Your task to perform on an android device: Set the phone to "Do not disturb". Image 0: 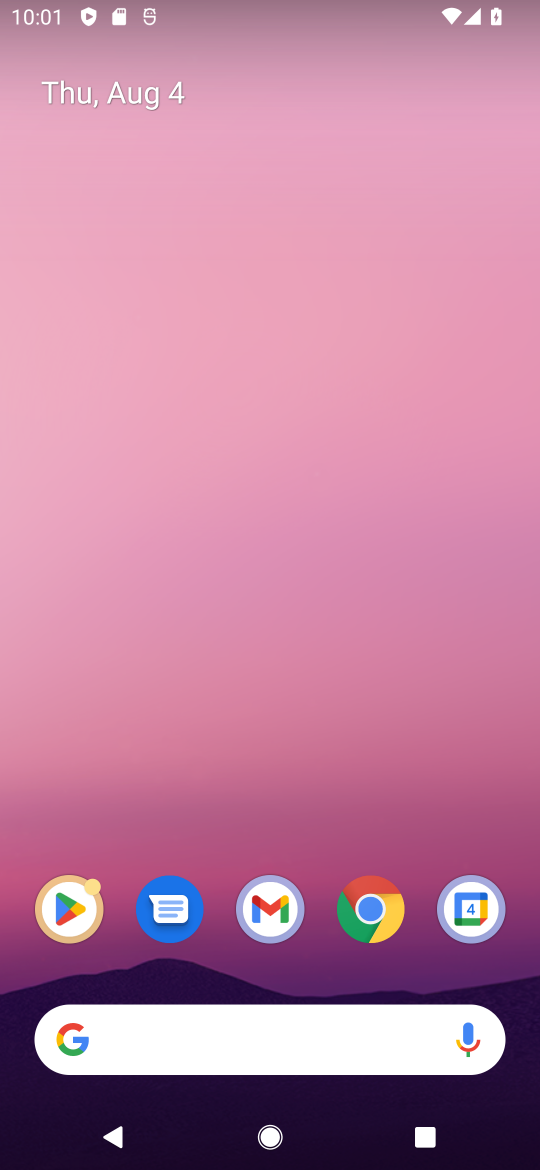
Step 0: drag from (311, 864) to (256, 0)
Your task to perform on an android device: Set the phone to "Do not disturb". Image 1: 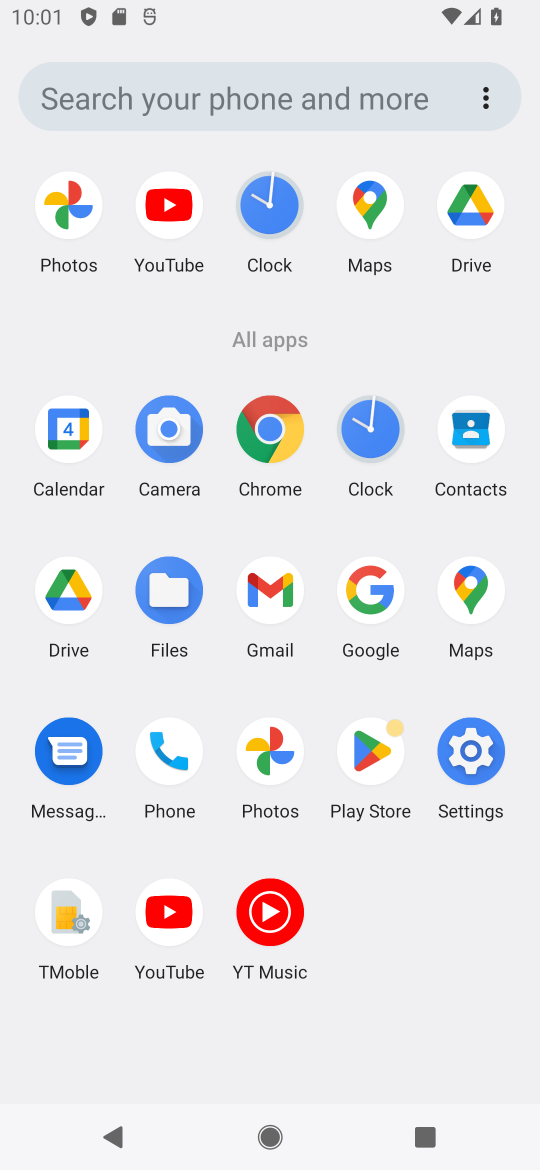
Step 1: click (468, 759)
Your task to perform on an android device: Set the phone to "Do not disturb". Image 2: 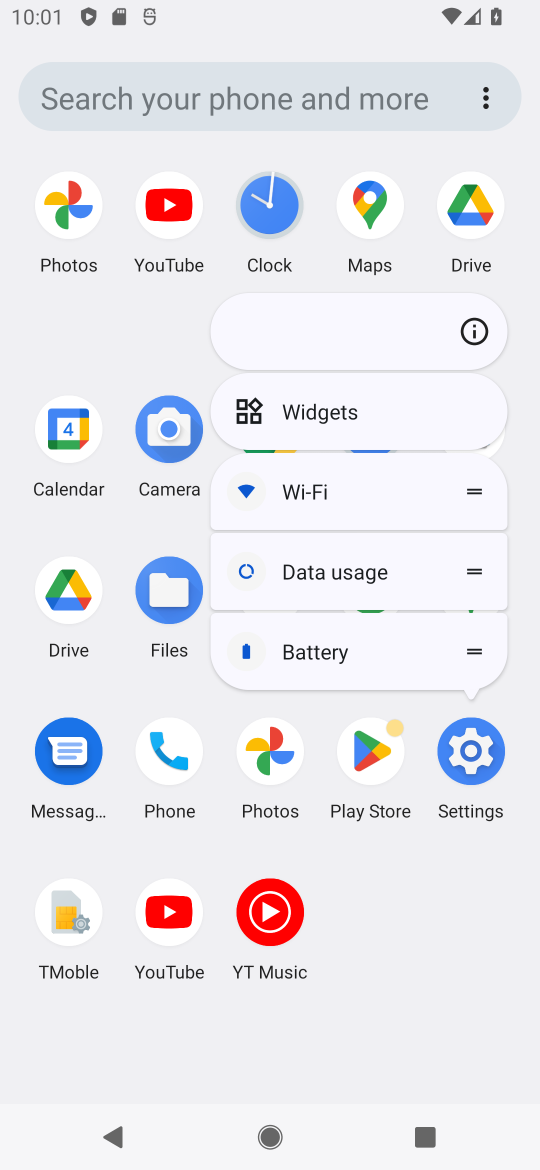
Step 2: click (468, 754)
Your task to perform on an android device: Set the phone to "Do not disturb". Image 3: 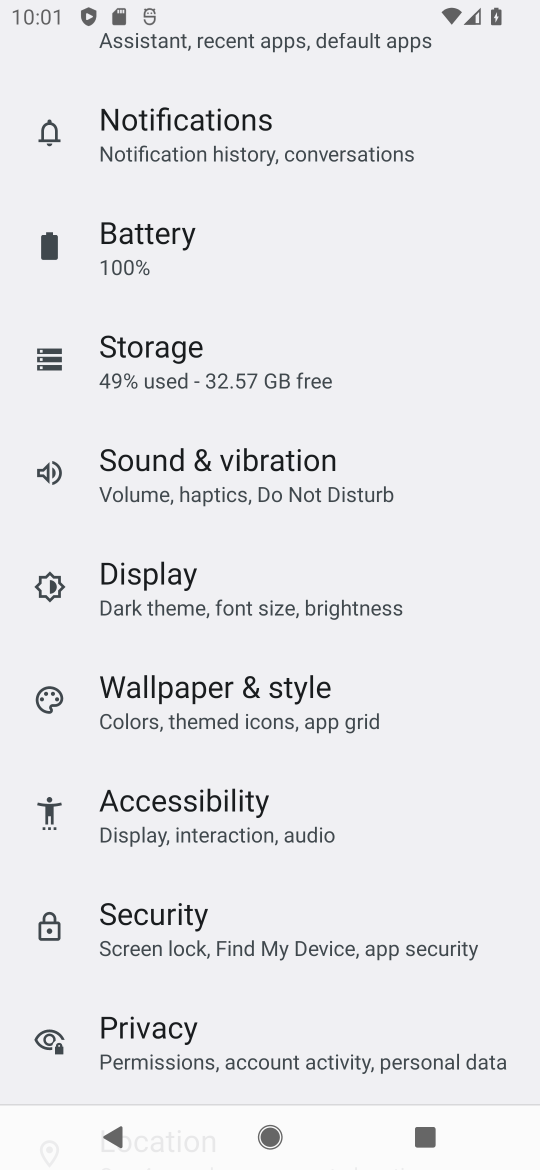
Step 3: drag from (373, 849) to (375, 376)
Your task to perform on an android device: Set the phone to "Do not disturb". Image 4: 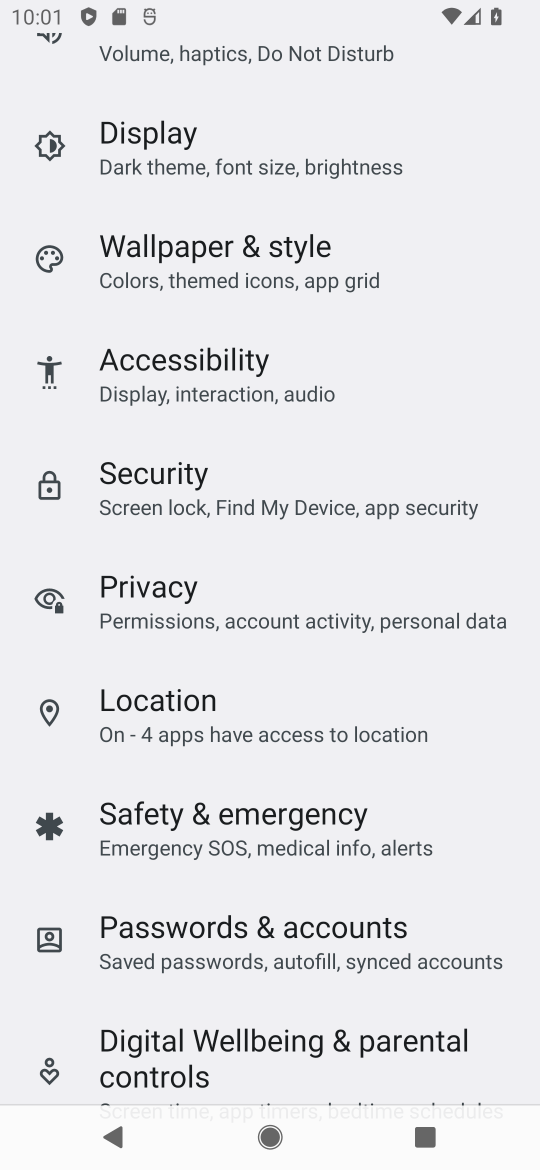
Step 4: drag from (508, 968) to (532, 374)
Your task to perform on an android device: Set the phone to "Do not disturb". Image 5: 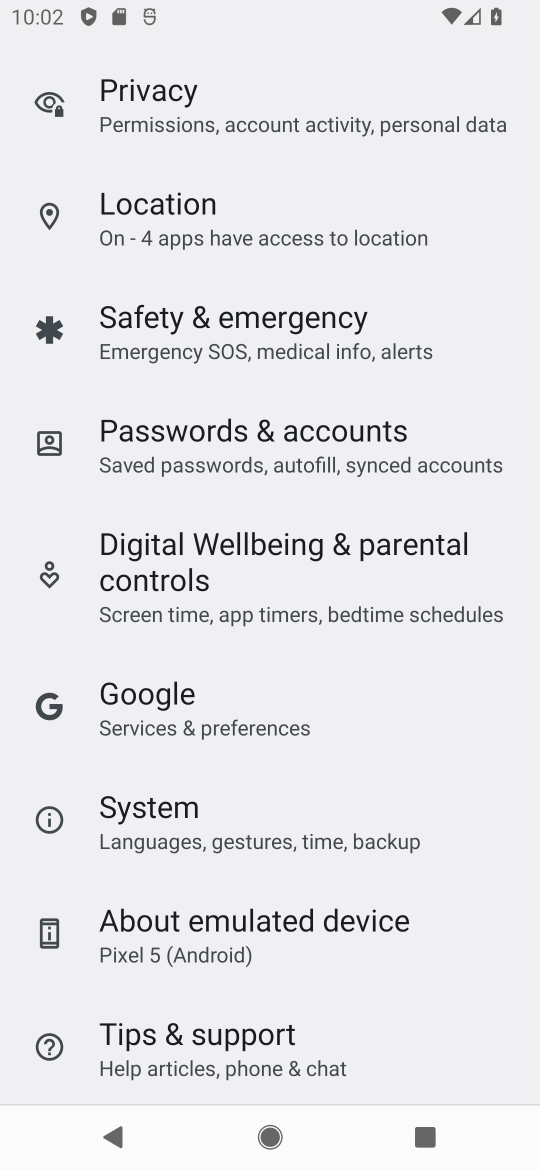
Step 5: drag from (464, 957) to (450, 426)
Your task to perform on an android device: Set the phone to "Do not disturb". Image 6: 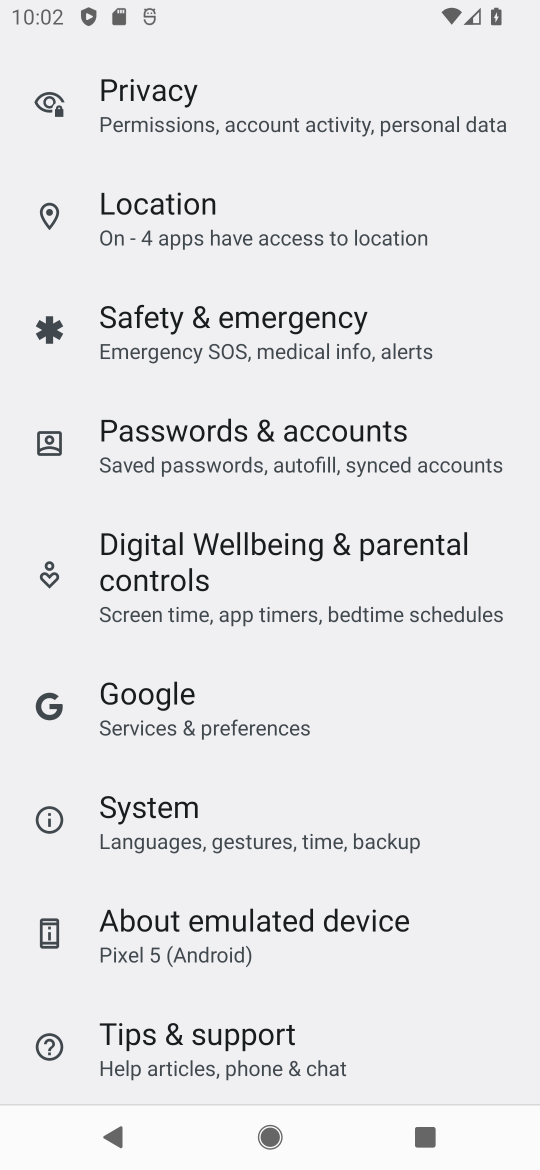
Step 6: drag from (456, 337) to (477, 893)
Your task to perform on an android device: Set the phone to "Do not disturb". Image 7: 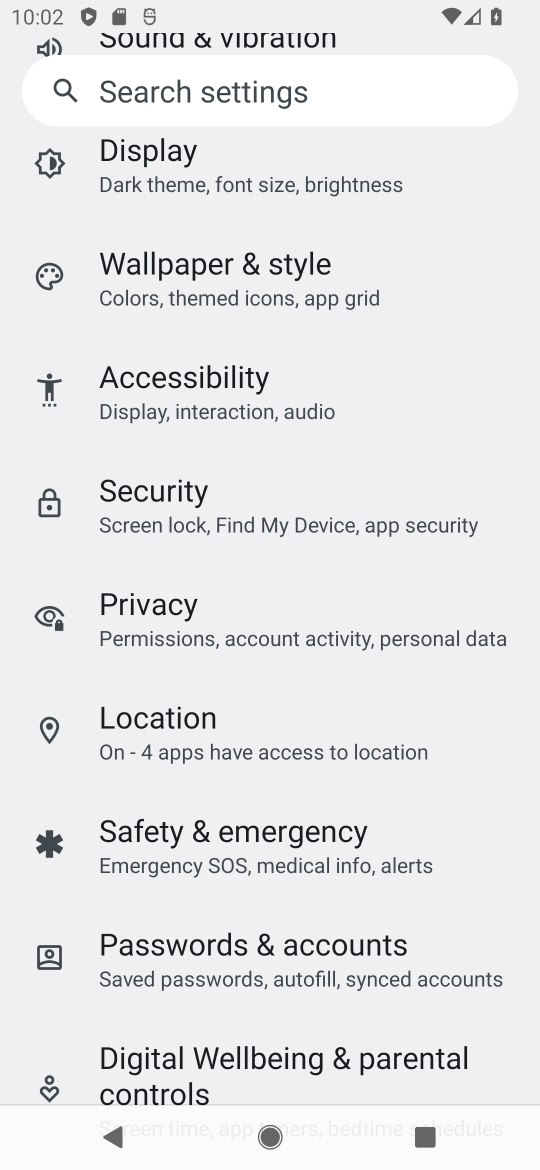
Step 7: drag from (478, 434) to (485, 849)
Your task to perform on an android device: Set the phone to "Do not disturb". Image 8: 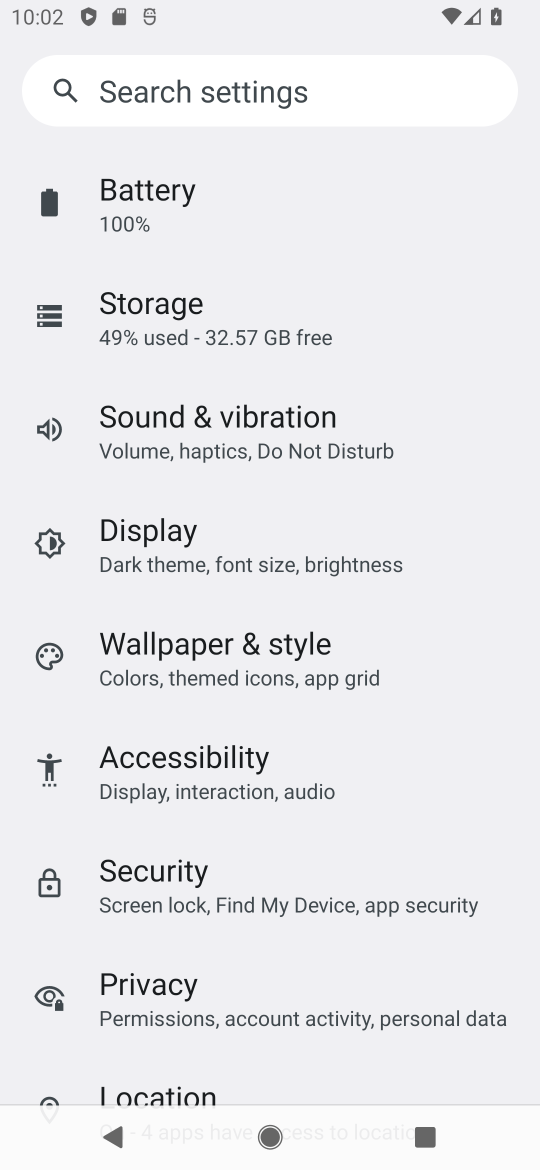
Step 8: click (176, 434)
Your task to perform on an android device: Set the phone to "Do not disturb". Image 9: 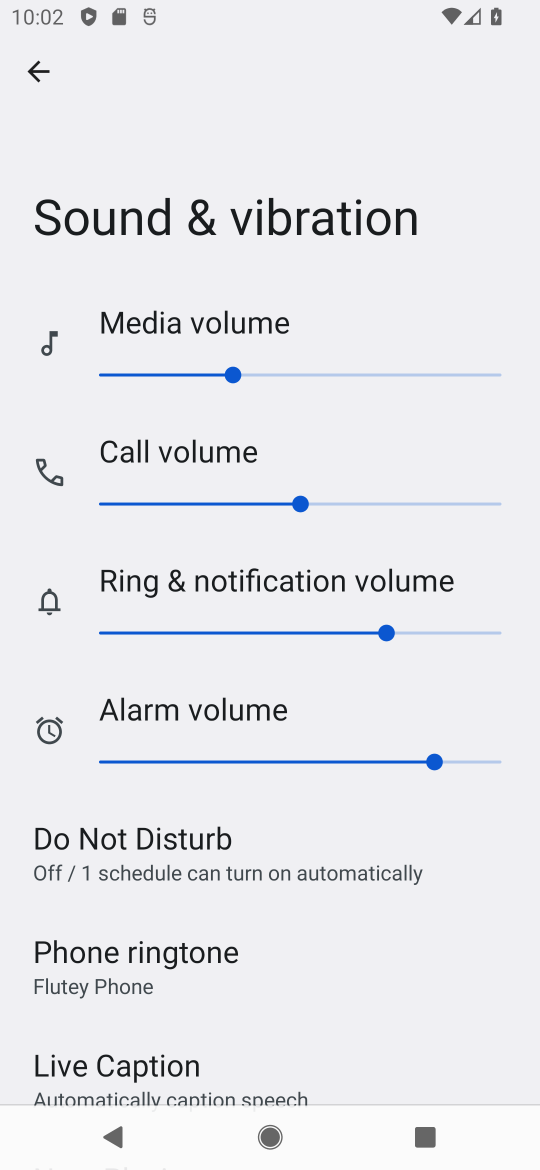
Step 9: click (142, 871)
Your task to perform on an android device: Set the phone to "Do not disturb". Image 10: 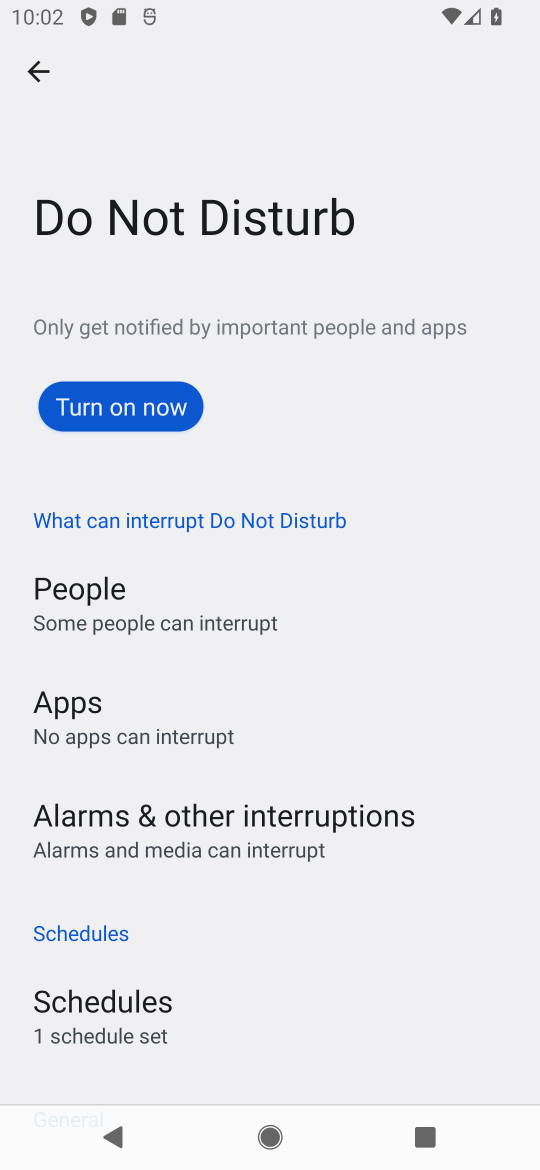
Step 10: click (118, 417)
Your task to perform on an android device: Set the phone to "Do not disturb". Image 11: 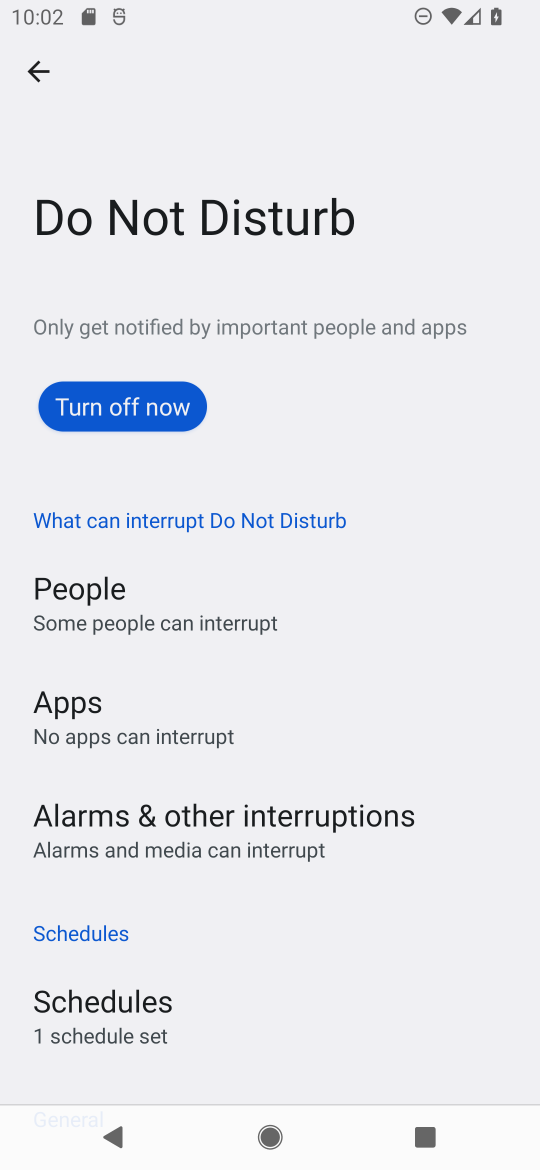
Step 11: task complete